Your task to perform on an android device: turn on location history Image 0: 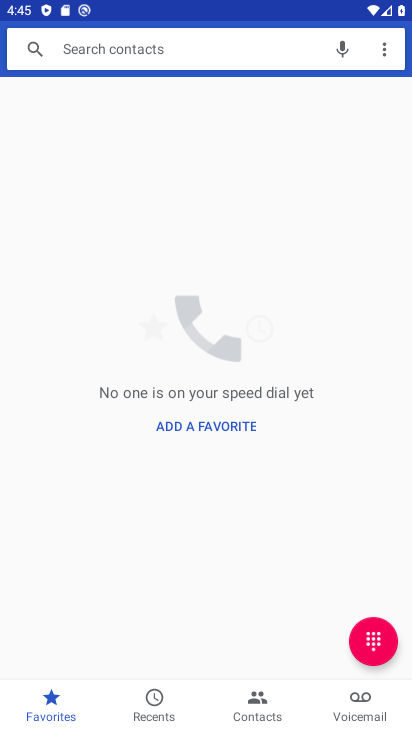
Step 0: press home button
Your task to perform on an android device: turn on location history Image 1: 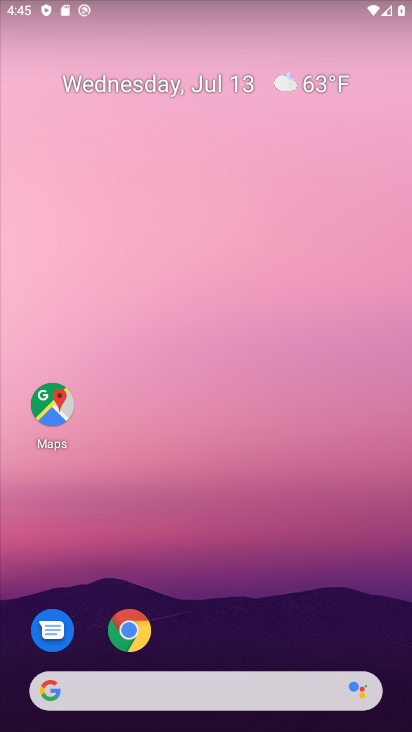
Step 1: drag from (228, 592) to (228, 20)
Your task to perform on an android device: turn on location history Image 2: 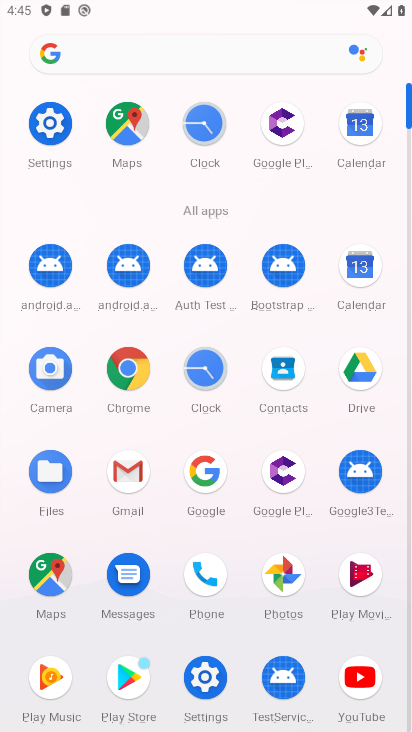
Step 2: click (44, 133)
Your task to perform on an android device: turn on location history Image 3: 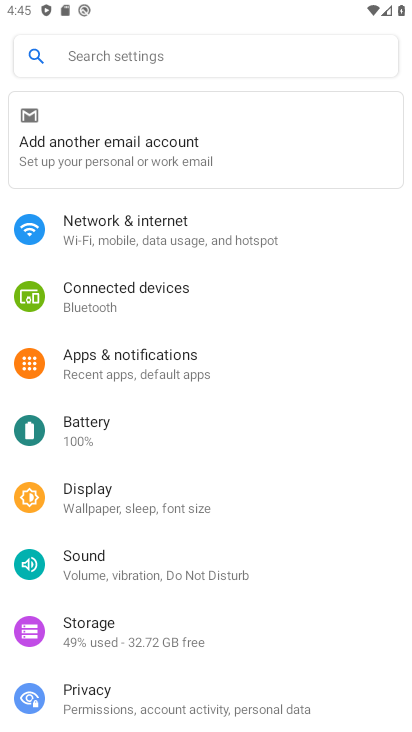
Step 3: drag from (346, 614) to (298, 179)
Your task to perform on an android device: turn on location history Image 4: 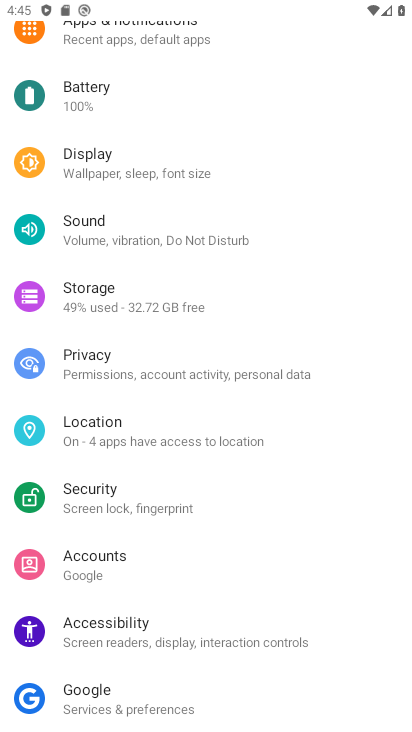
Step 4: click (85, 436)
Your task to perform on an android device: turn on location history Image 5: 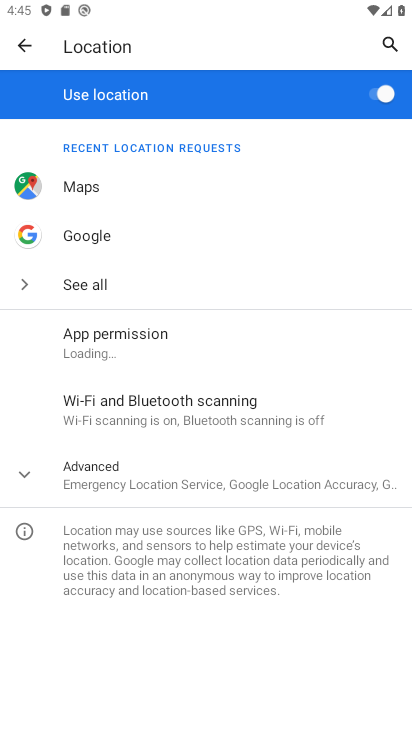
Step 5: click (111, 476)
Your task to perform on an android device: turn on location history Image 6: 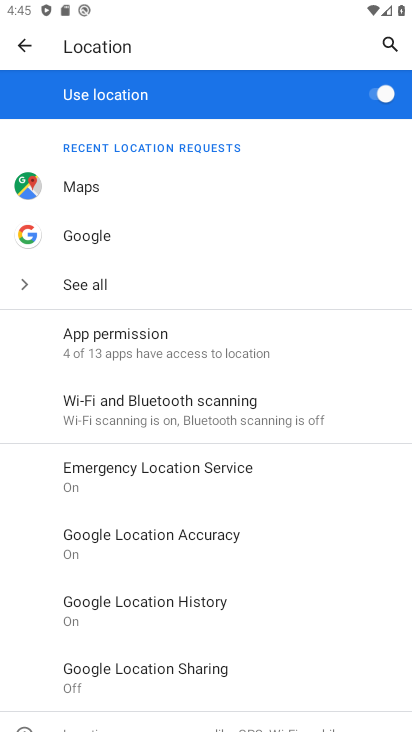
Step 6: click (162, 604)
Your task to perform on an android device: turn on location history Image 7: 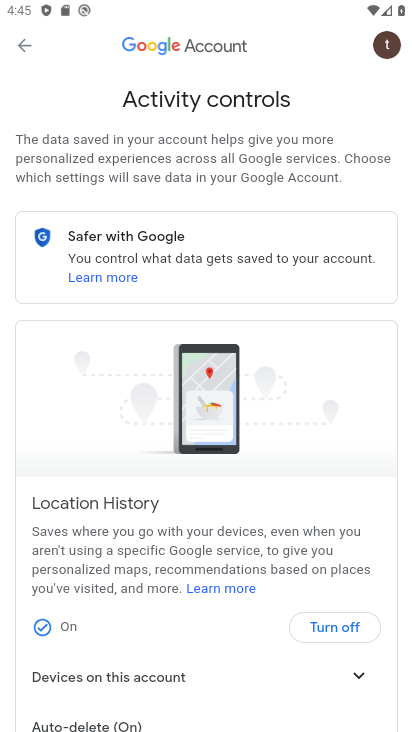
Step 7: task complete